Your task to perform on an android device: Is it going to rain tomorrow? Image 0: 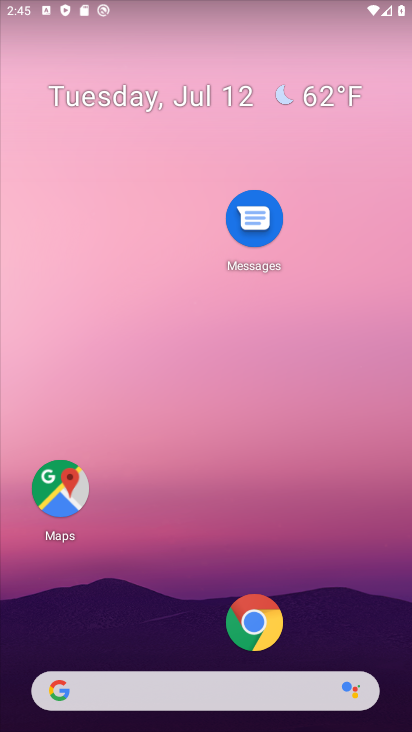
Step 0: click (165, 688)
Your task to perform on an android device: Is it going to rain tomorrow? Image 1: 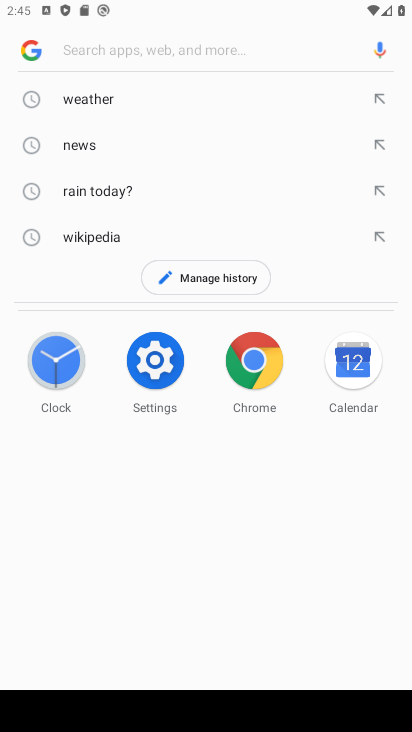
Step 1: click (113, 90)
Your task to perform on an android device: Is it going to rain tomorrow? Image 2: 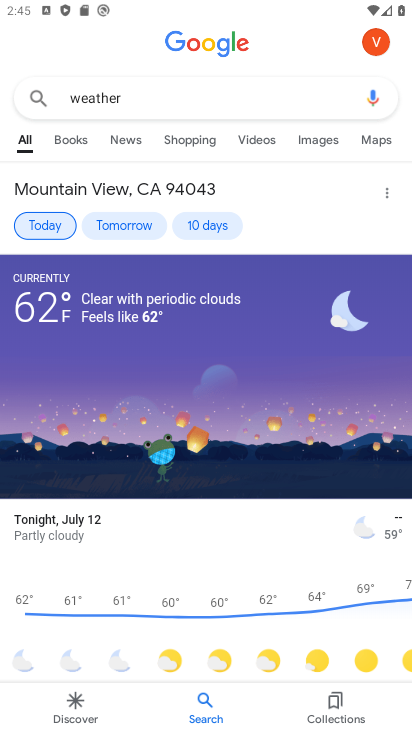
Step 2: click (133, 230)
Your task to perform on an android device: Is it going to rain tomorrow? Image 3: 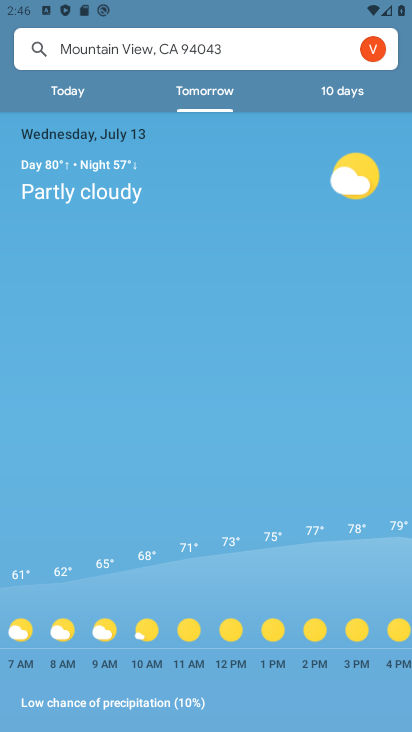
Step 3: drag from (361, 637) to (63, 622)
Your task to perform on an android device: Is it going to rain tomorrow? Image 4: 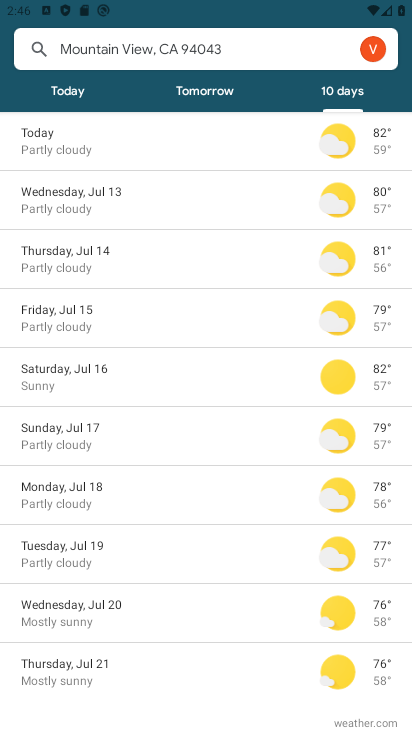
Step 4: click (194, 91)
Your task to perform on an android device: Is it going to rain tomorrow? Image 5: 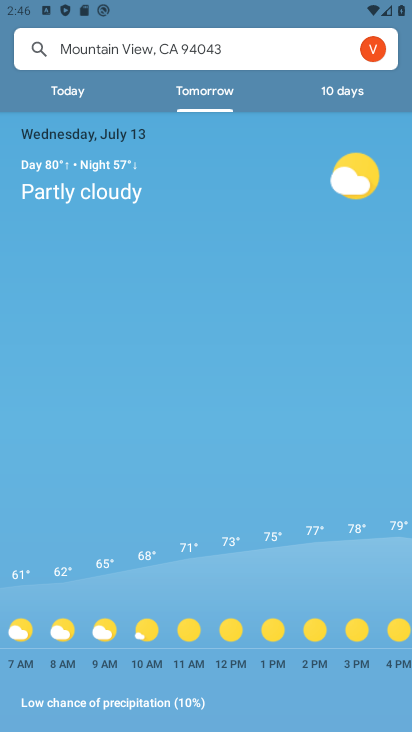
Step 5: task complete